Your task to perform on an android device: What is the recent news? Image 0: 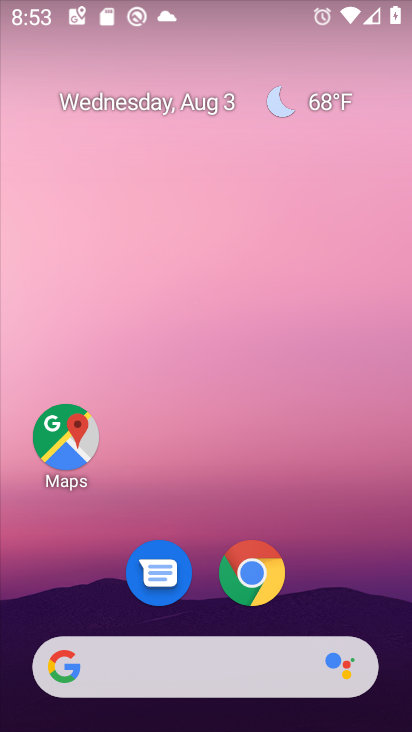
Step 0: click (126, 665)
Your task to perform on an android device: What is the recent news? Image 1: 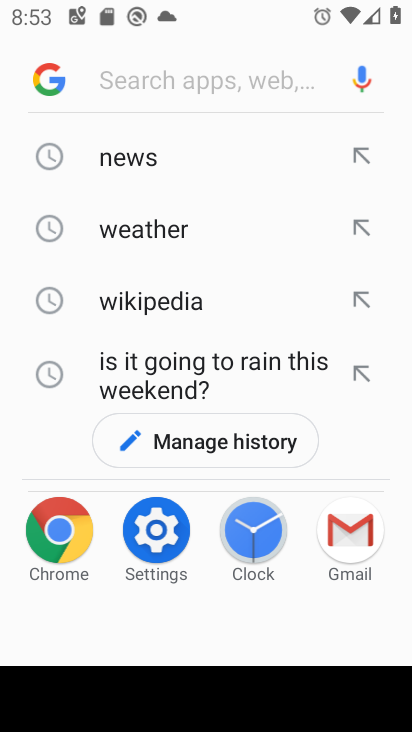
Step 1: type "recent news"
Your task to perform on an android device: What is the recent news? Image 2: 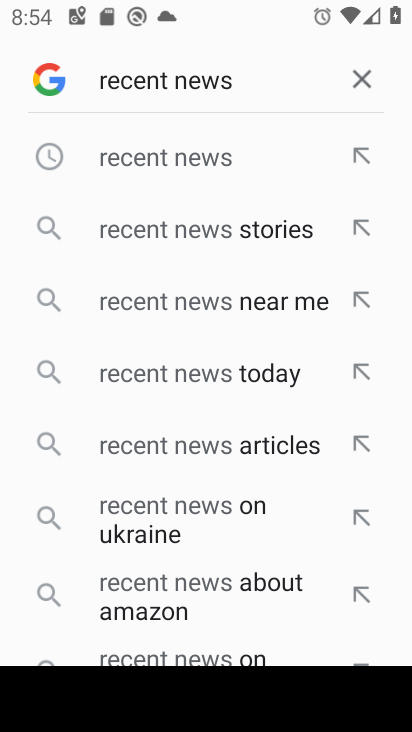
Step 2: click (147, 158)
Your task to perform on an android device: What is the recent news? Image 3: 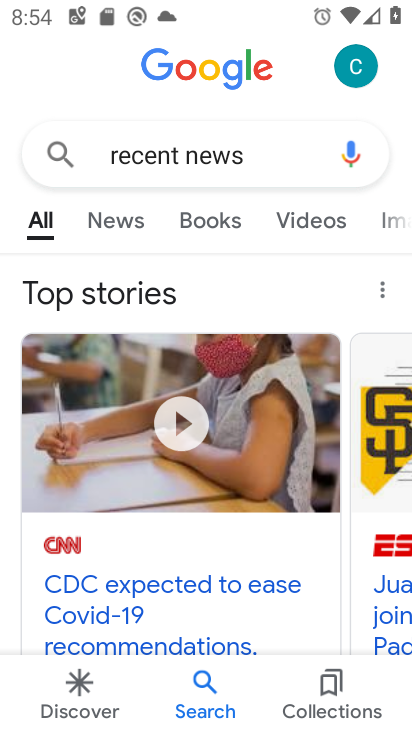
Step 3: click (122, 227)
Your task to perform on an android device: What is the recent news? Image 4: 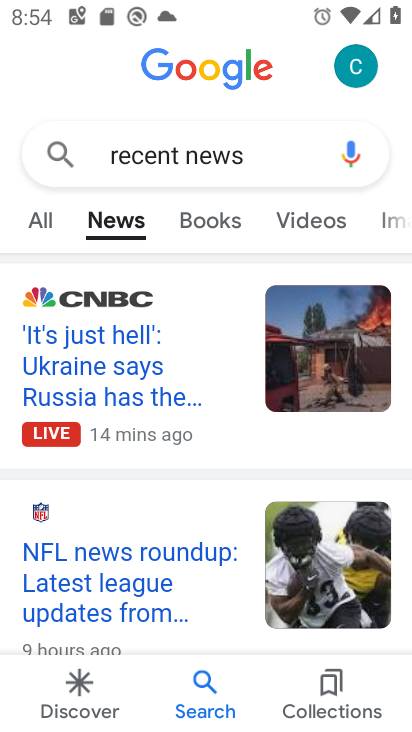
Step 4: click (144, 396)
Your task to perform on an android device: What is the recent news? Image 5: 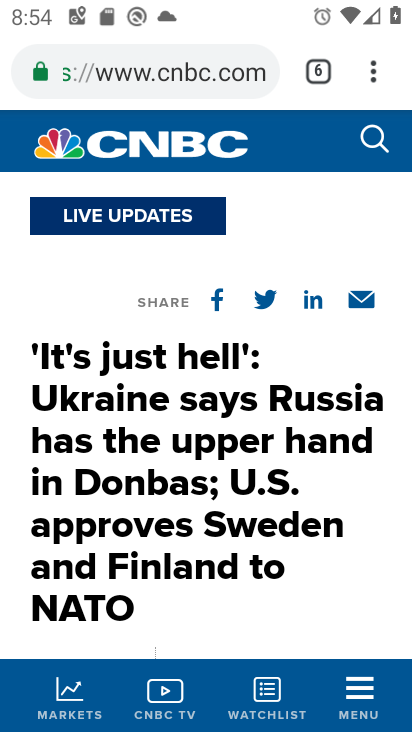
Step 5: task complete